Your task to perform on an android device: check the backup settings in the google photos Image 0: 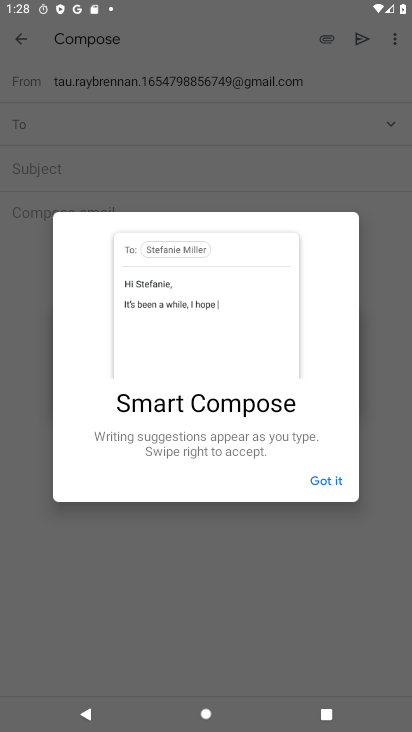
Step 0: press home button
Your task to perform on an android device: check the backup settings in the google photos Image 1: 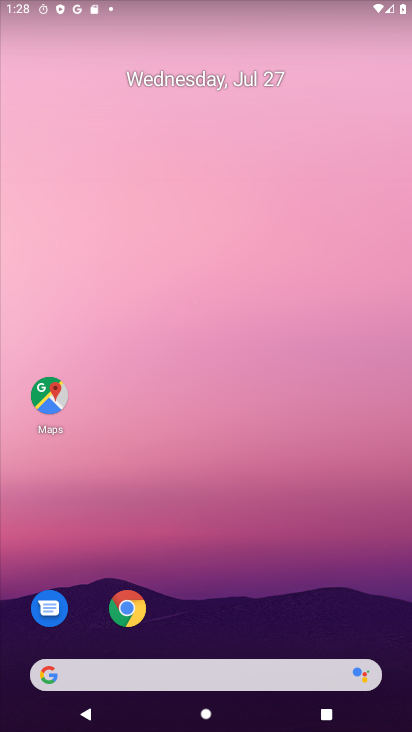
Step 1: drag from (201, 608) to (196, 98)
Your task to perform on an android device: check the backup settings in the google photos Image 2: 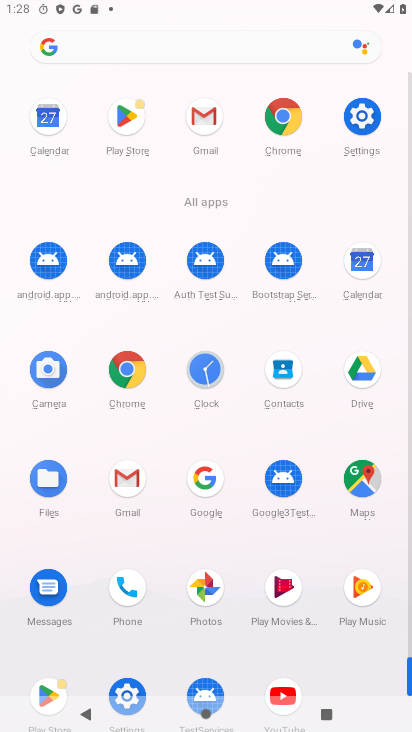
Step 2: click (204, 590)
Your task to perform on an android device: check the backup settings in the google photos Image 3: 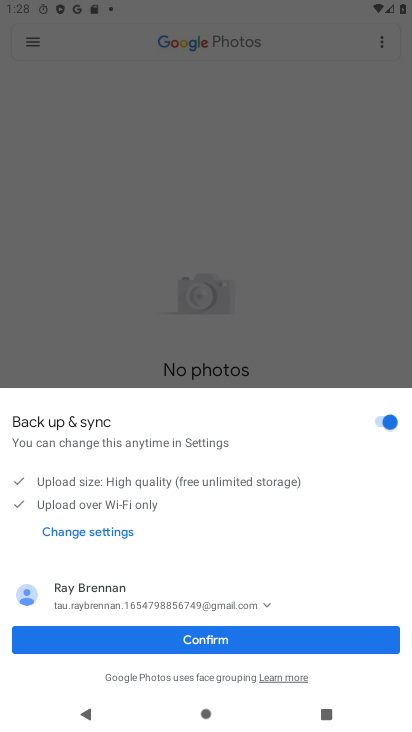
Step 3: click (186, 636)
Your task to perform on an android device: check the backup settings in the google photos Image 4: 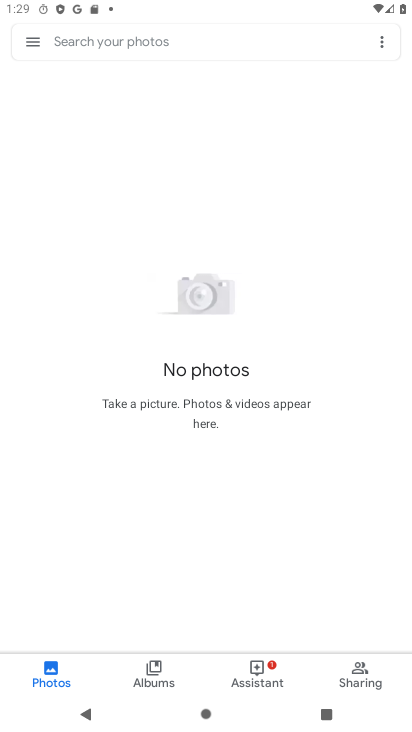
Step 4: click (31, 42)
Your task to perform on an android device: check the backup settings in the google photos Image 5: 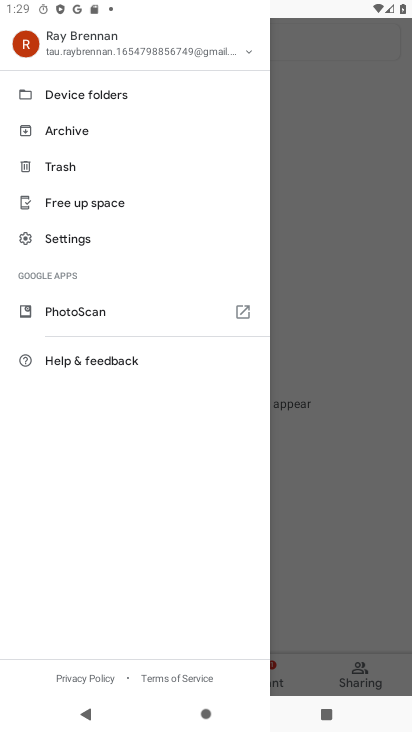
Step 5: click (52, 237)
Your task to perform on an android device: check the backup settings in the google photos Image 6: 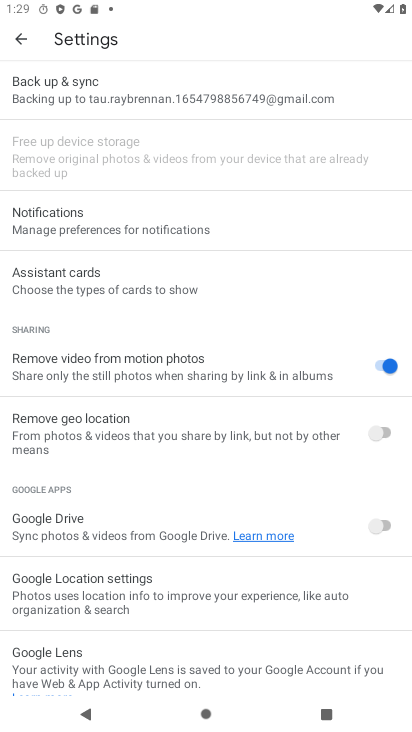
Step 6: click (102, 97)
Your task to perform on an android device: check the backup settings in the google photos Image 7: 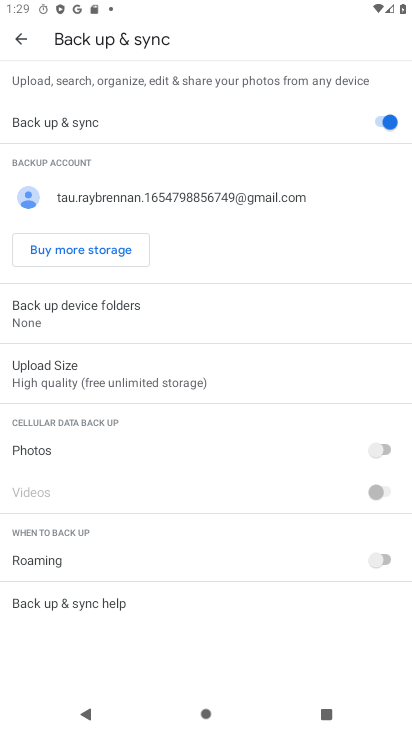
Step 7: task complete